Your task to perform on an android device: open sync settings in chrome Image 0: 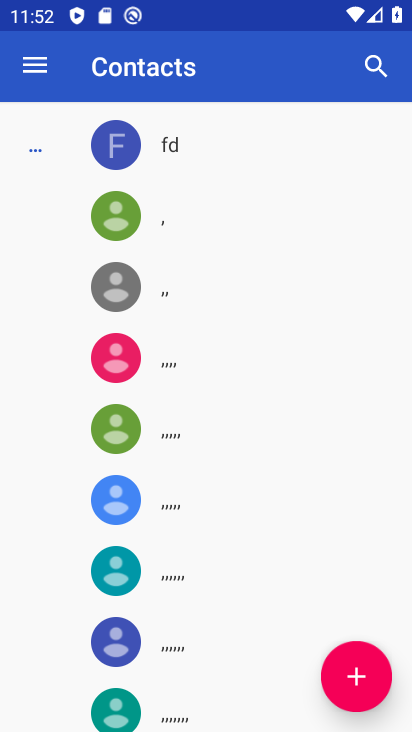
Step 0: press home button
Your task to perform on an android device: open sync settings in chrome Image 1: 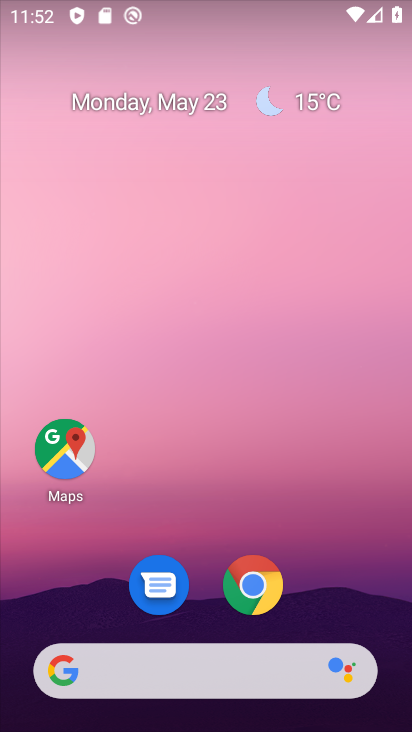
Step 1: click (255, 575)
Your task to perform on an android device: open sync settings in chrome Image 2: 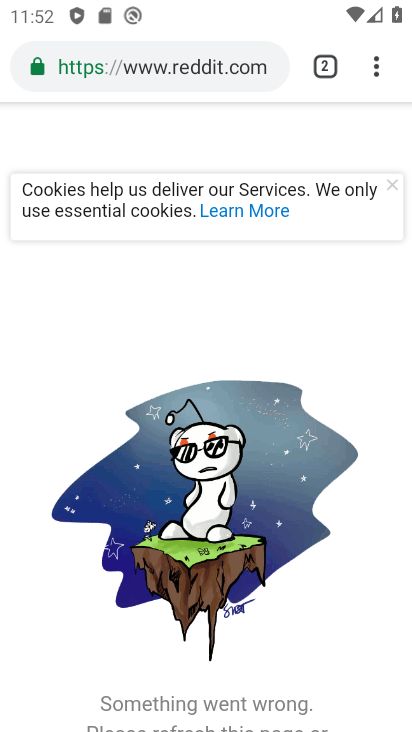
Step 2: click (374, 63)
Your task to perform on an android device: open sync settings in chrome Image 3: 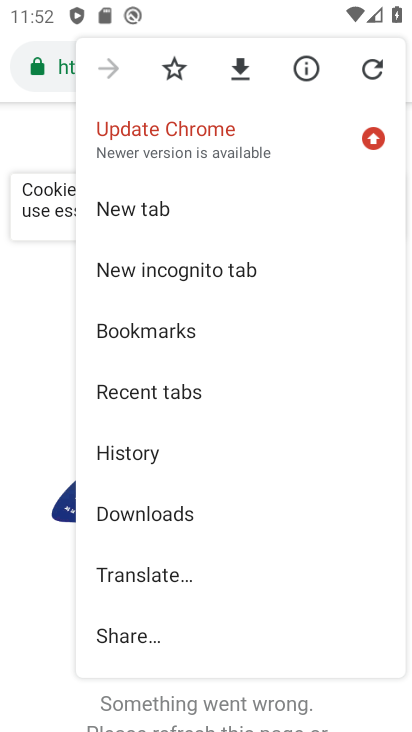
Step 3: drag from (213, 475) to (223, 121)
Your task to perform on an android device: open sync settings in chrome Image 4: 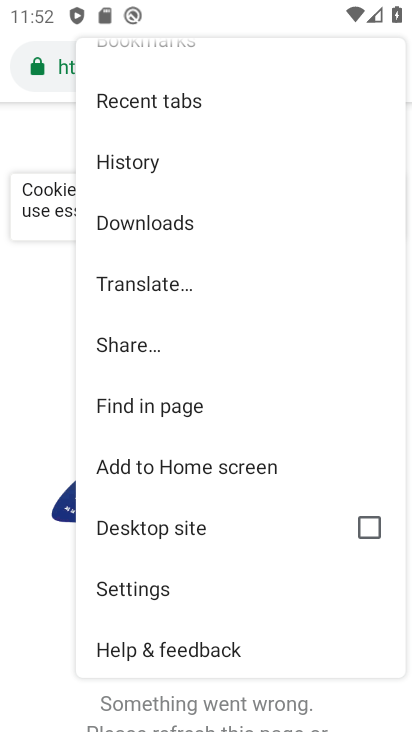
Step 4: click (156, 588)
Your task to perform on an android device: open sync settings in chrome Image 5: 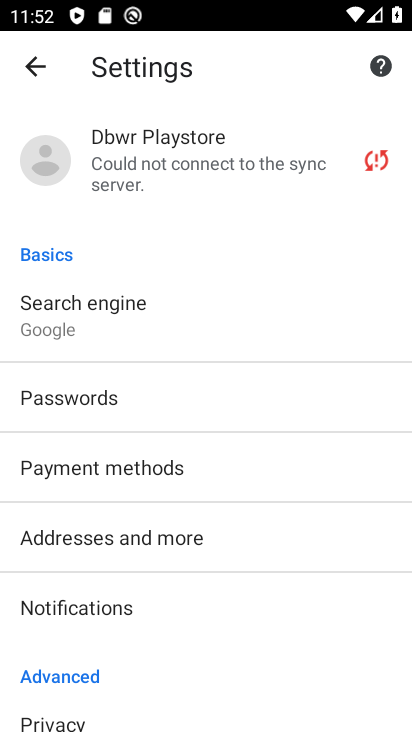
Step 5: click (201, 143)
Your task to perform on an android device: open sync settings in chrome Image 6: 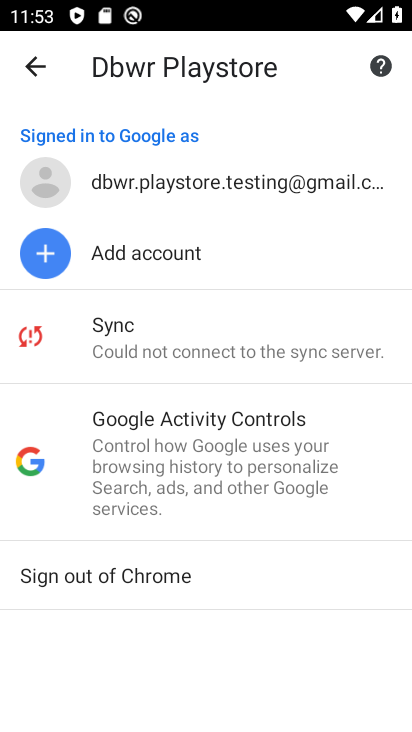
Step 6: click (182, 339)
Your task to perform on an android device: open sync settings in chrome Image 7: 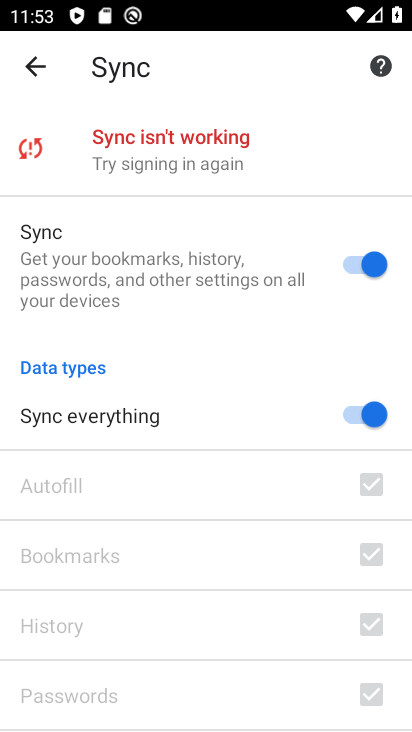
Step 7: task complete